Your task to perform on an android device: turn off location Image 0: 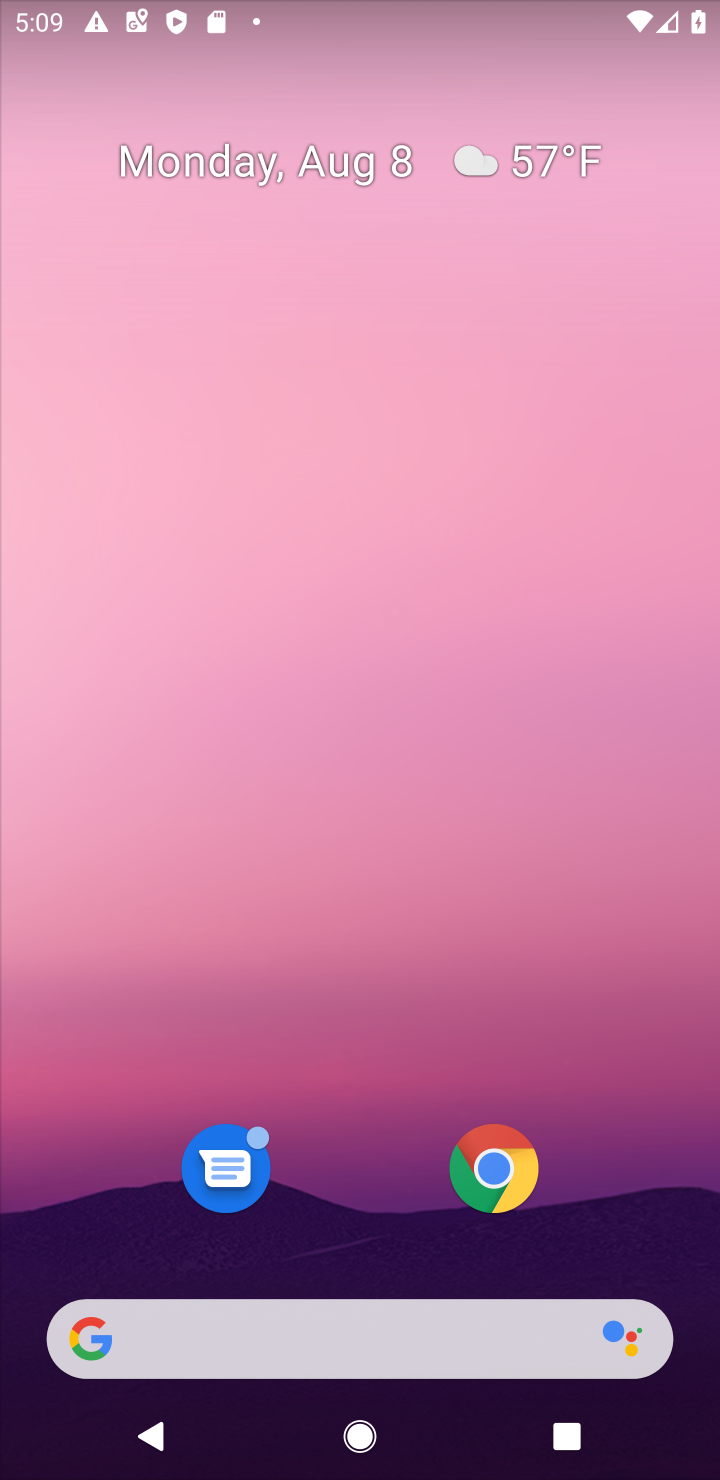
Step 0: drag from (338, 1359) to (447, 188)
Your task to perform on an android device: turn off location Image 1: 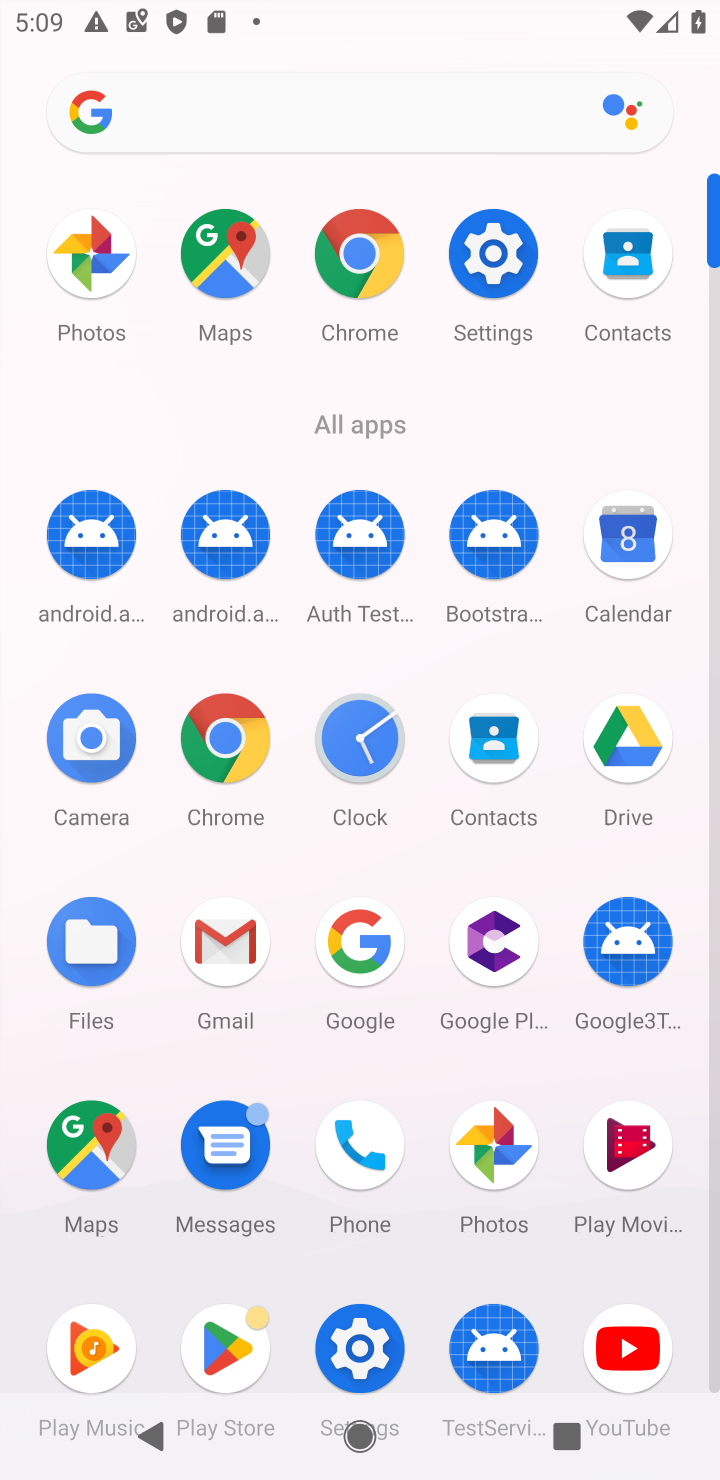
Step 1: click (488, 271)
Your task to perform on an android device: turn off location Image 2: 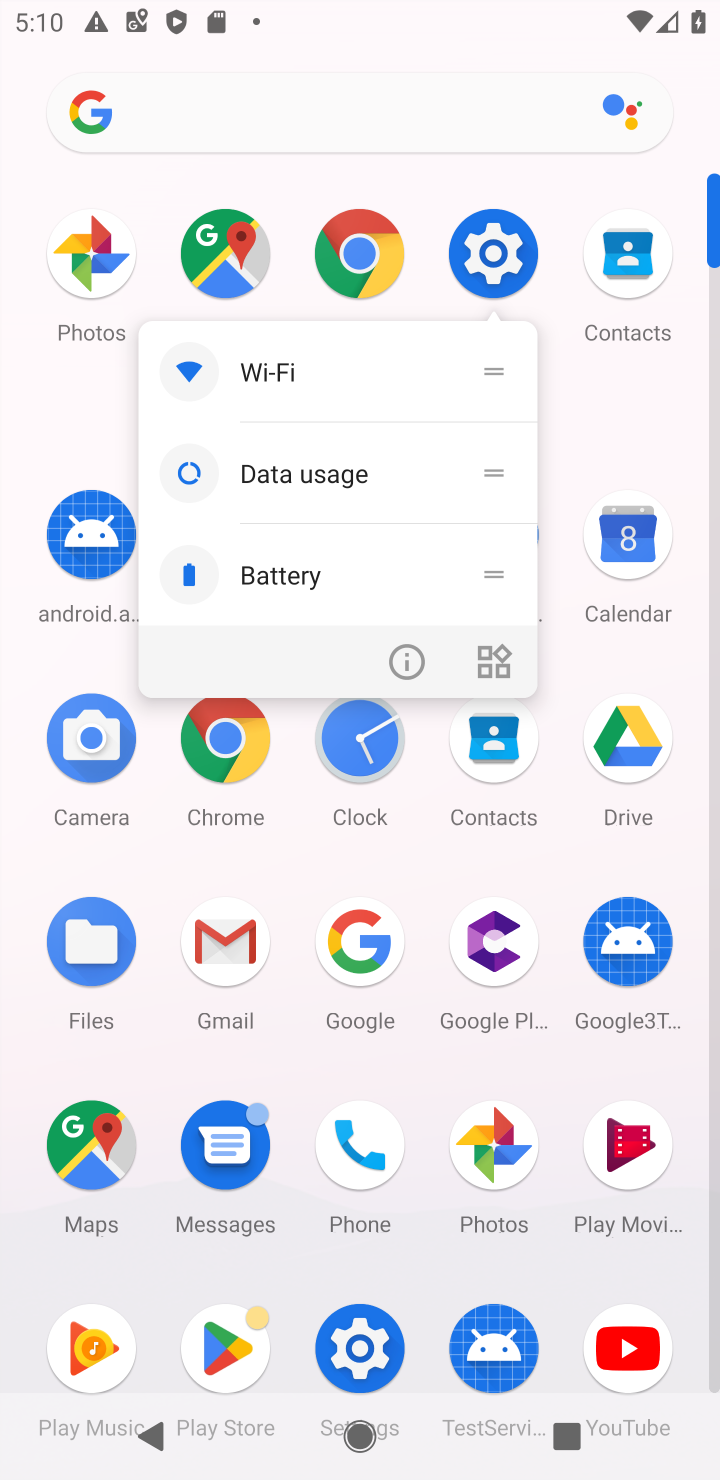
Step 2: click (369, 1349)
Your task to perform on an android device: turn off location Image 3: 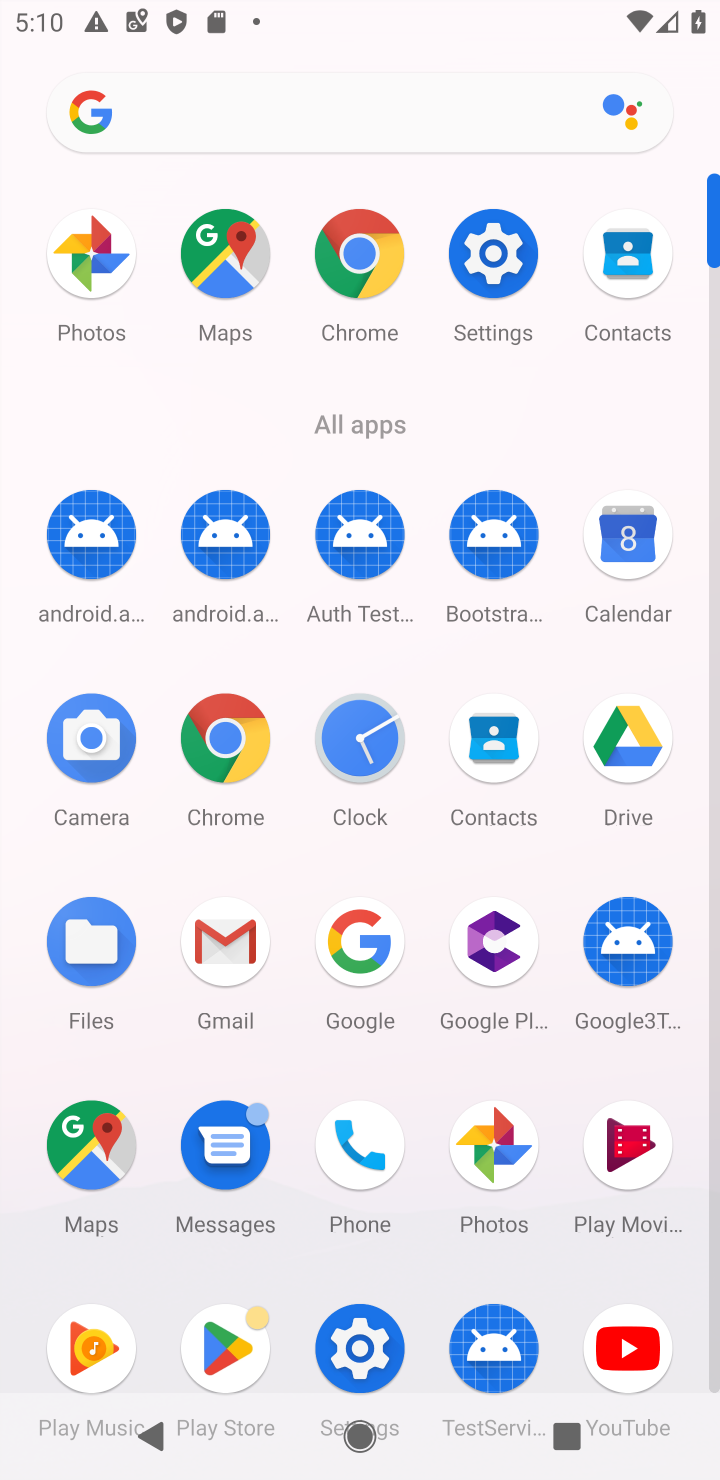
Step 3: click (369, 1349)
Your task to perform on an android device: turn off location Image 4: 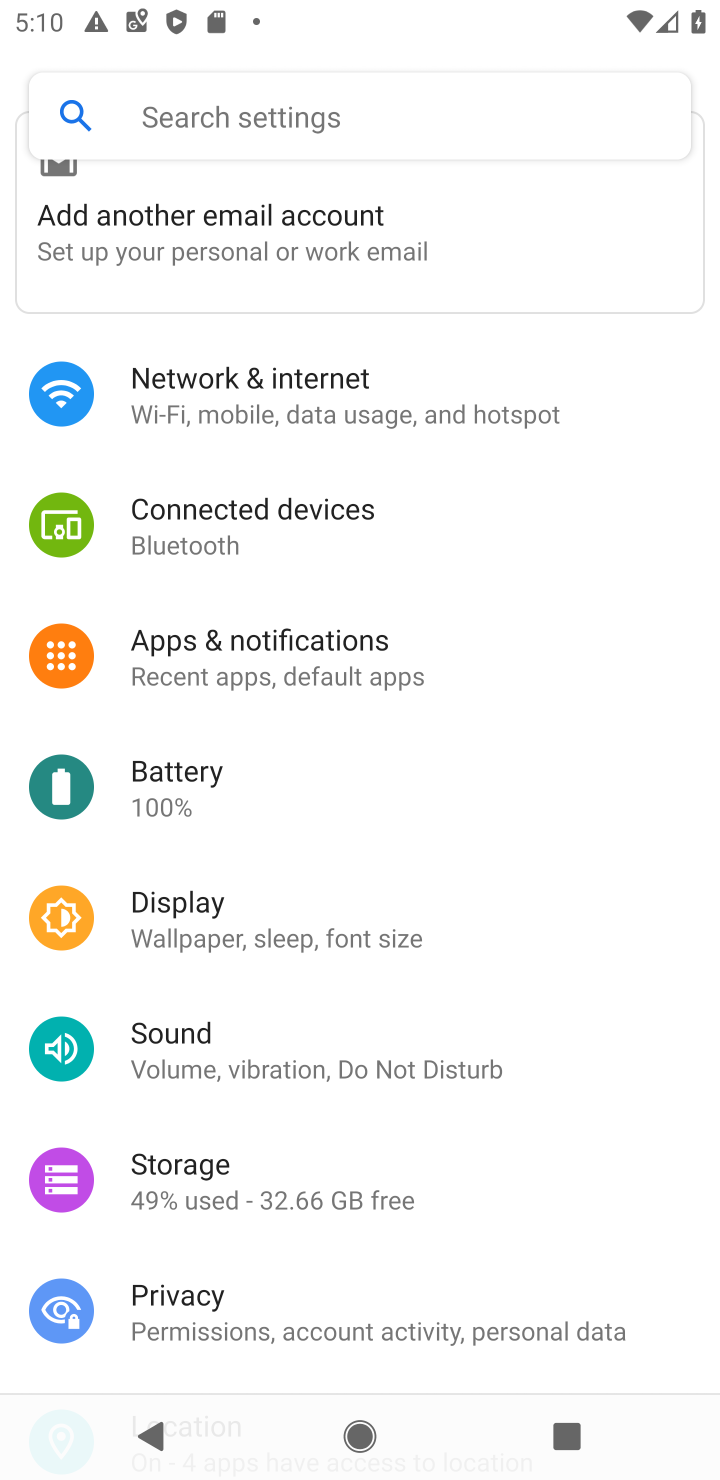
Step 4: drag from (249, 1238) to (294, 281)
Your task to perform on an android device: turn off location Image 5: 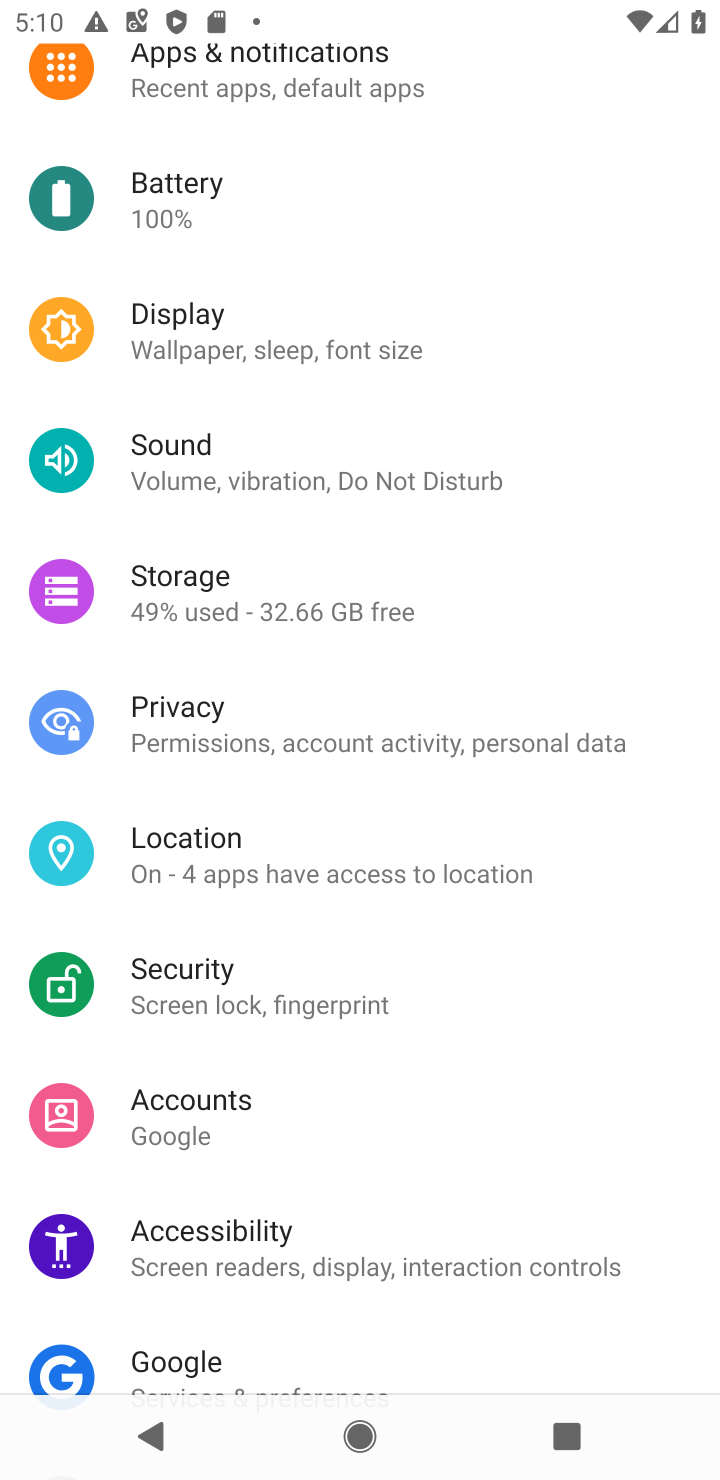
Step 5: click (210, 881)
Your task to perform on an android device: turn off location Image 6: 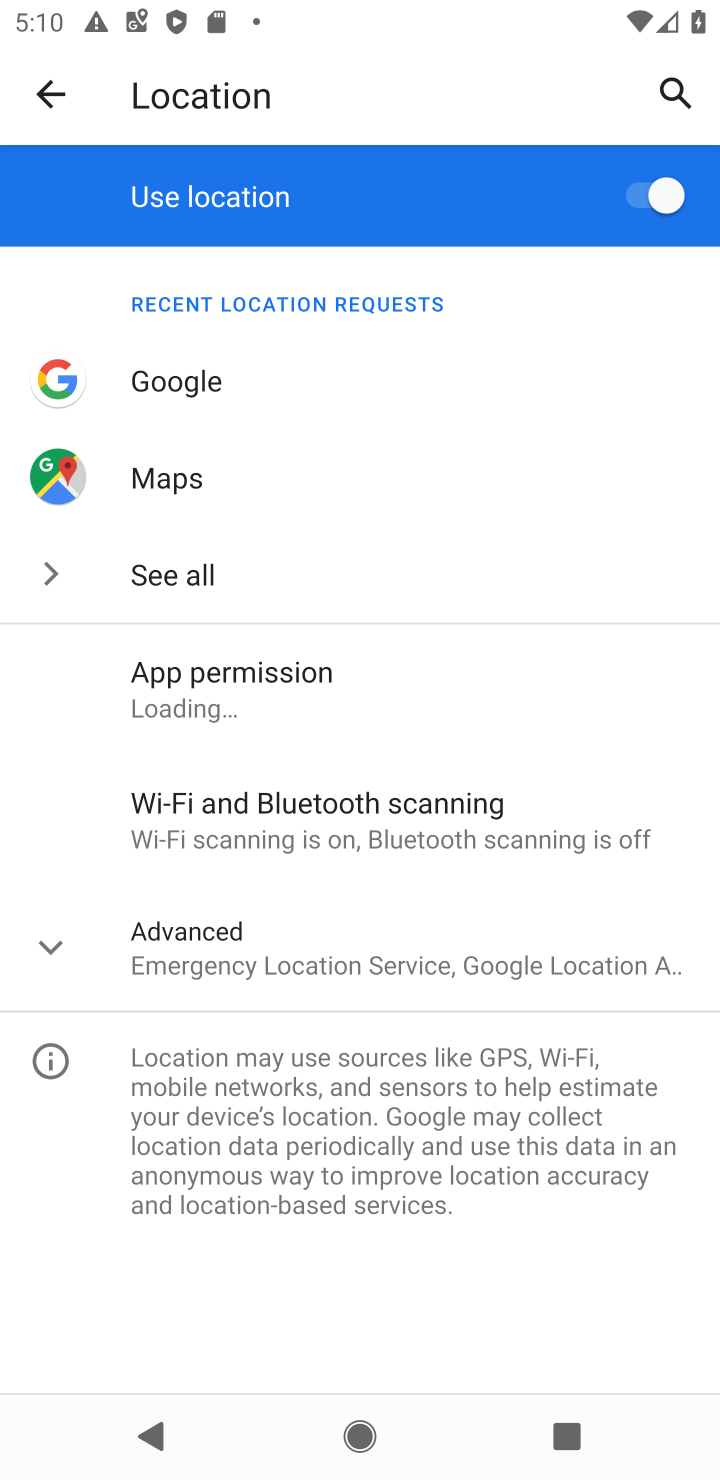
Step 6: click (656, 209)
Your task to perform on an android device: turn off location Image 7: 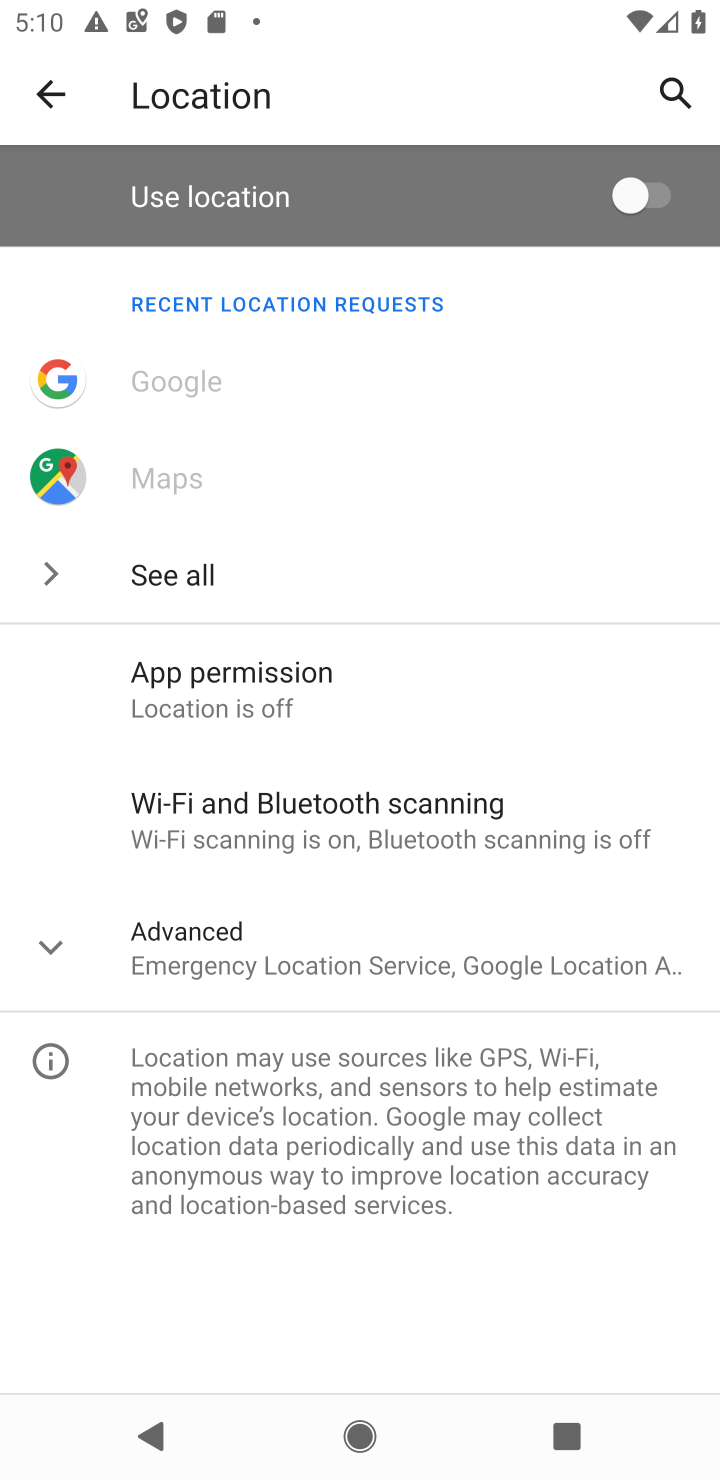
Step 7: task complete